Your task to perform on an android device: toggle wifi Image 0: 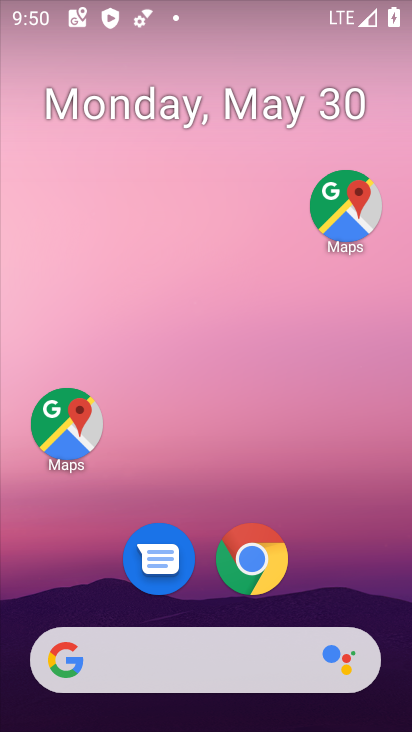
Step 0: drag from (330, 485) to (231, 96)
Your task to perform on an android device: toggle wifi Image 1: 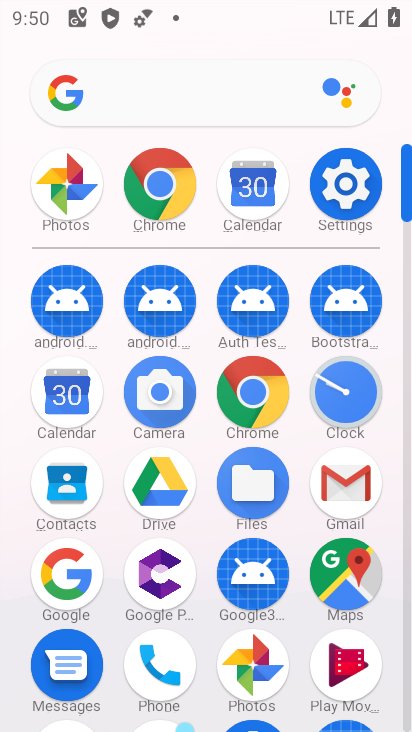
Step 1: click (352, 183)
Your task to perform on an android device: toggle wifi Image 2: 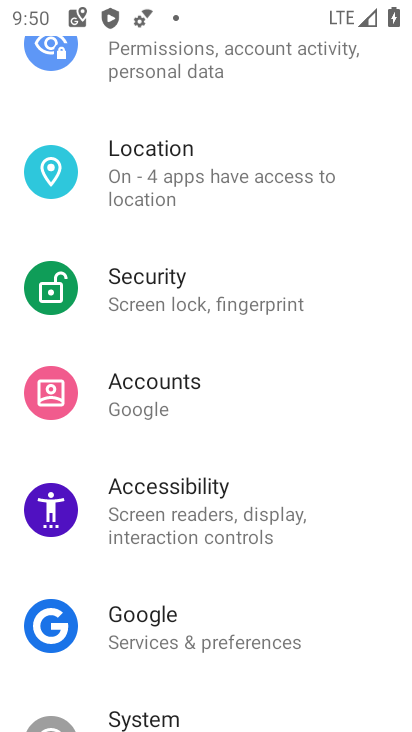
Step 2: drag from (190, 506) to (215, 178)
Your task to perform on an android device: toggle wifi Image 3: 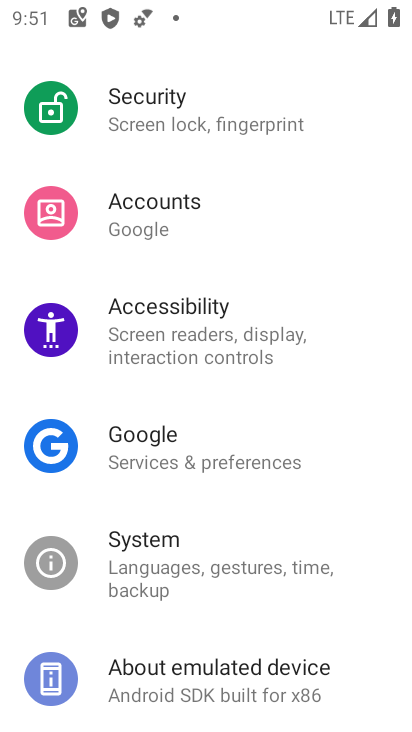
Step 3: drag from (175, 163) to (246, 682)
Your task to perform on an android device: toggle wifi Image 4: 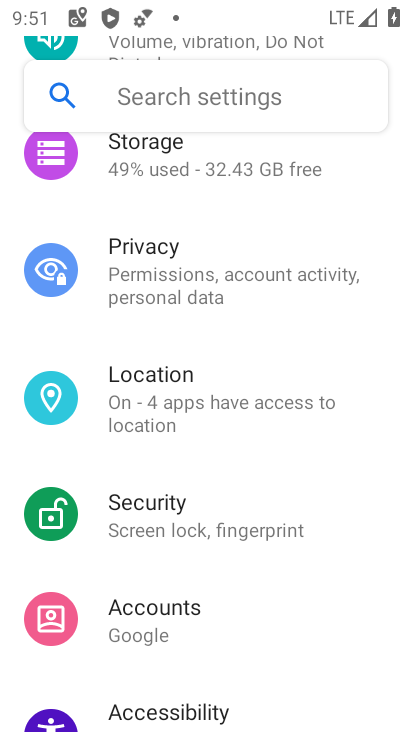
Step 4: drag from (212, 235) to (258, 730)
Your task to perform on an android device: toggle wifi Image 5: 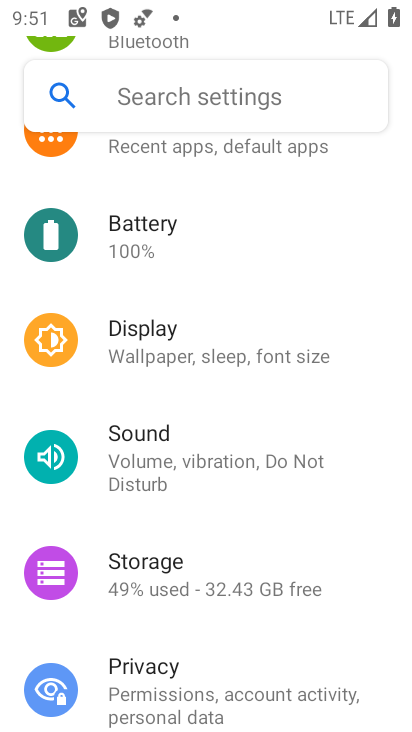
Step 5: drag from (172, 225) to (230, 706)
Your task to perform on an android device: toggle wifi Image 6: 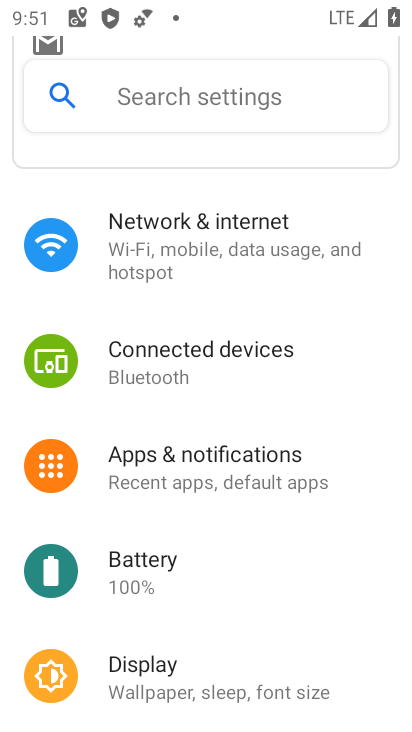
Step 6: click (179, 262)
Your task to perform on an android device: toggle wifi Image 7: 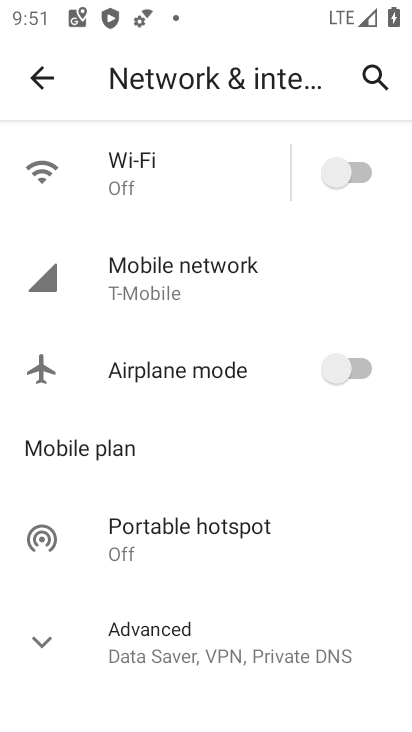
Step 7: click (333, 162)
Your task to perform on an android device: toggle wifi Image 8: 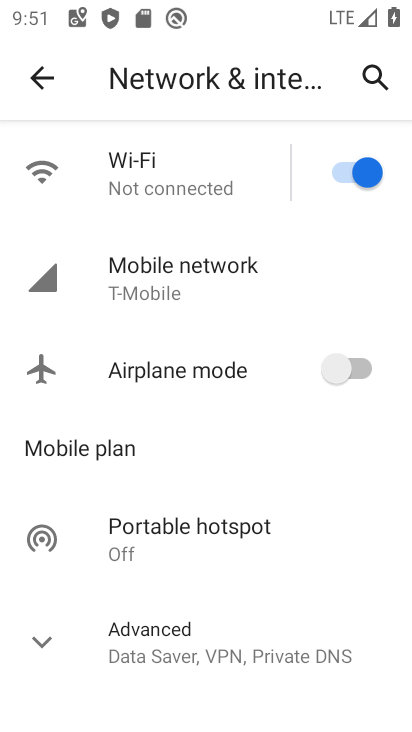
Step 8: task complete